Your task to perform on an android device: Go to location settings Image 0: 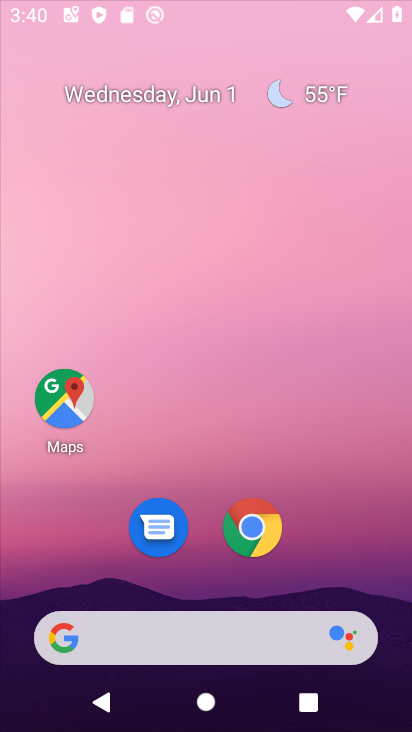
Step 0: press home button
Your task to perform on an android device: Go to location settings Image 1: 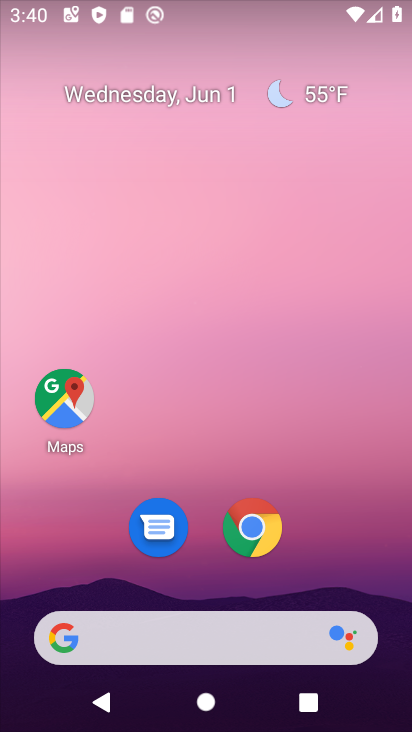
Step 1: drag from (313, 558) to (340, 164)
Your task to perform on an android device: Go to location settings Image 2: 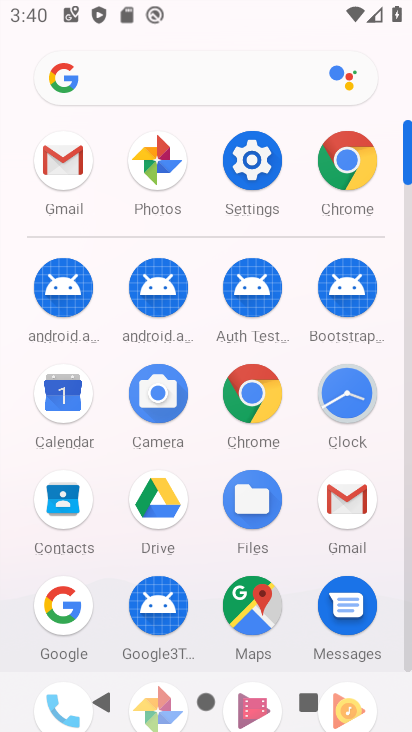
Step 2: click (236, 150)
Your task to perform on an android device: Go to location settings Image 3: 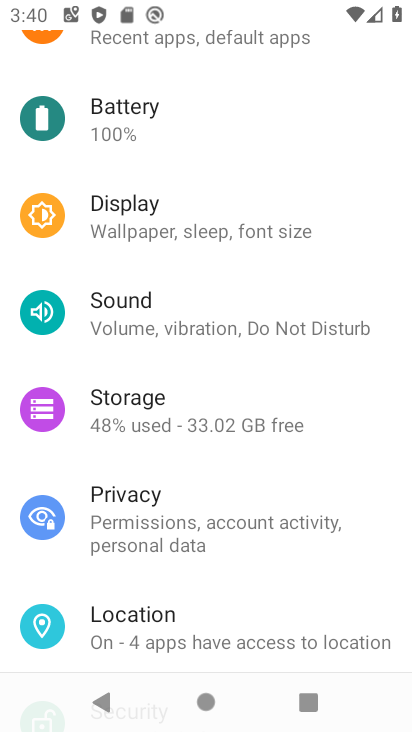
Step 3: click (124, 626)
Your task to perform on an android device: Go to location settings Image 4: 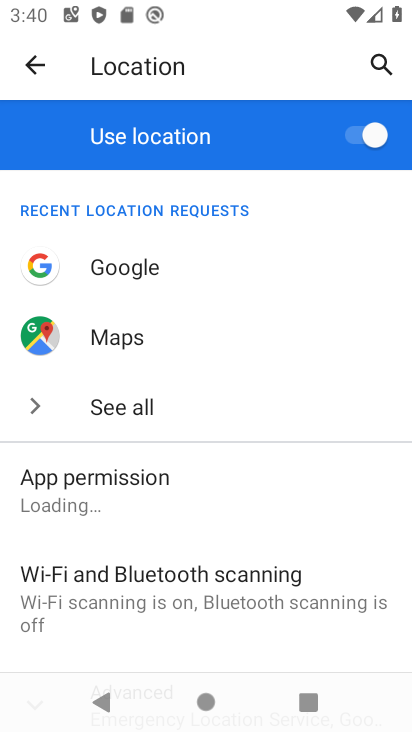
Step 4: task complete